Your task to perform on an android device: Open Maps and search for coffee Image 0: 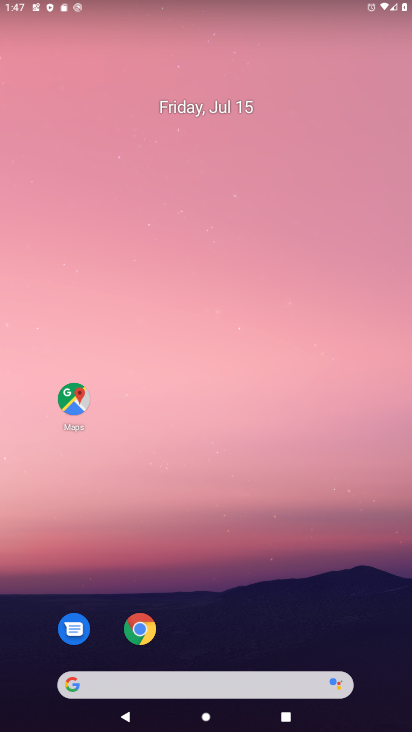
Step 0: drag from (331, 631) to (316, 87)
Your task to perform on an android device: Open Maps and search for coffee Image 1: 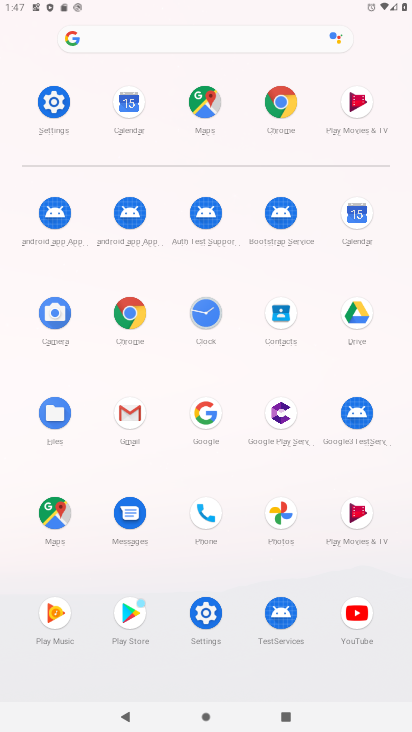
Step 1: click (194, 91)
Your task to perform on an android device: Open Maps and search for coffee Image 2: 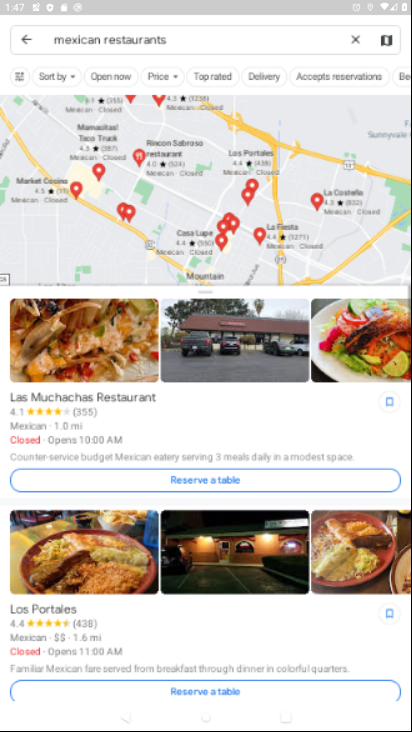
Step 2: click (217, 41)
Your task to perform on an android device: Open Maps and search for coffee Image 3: 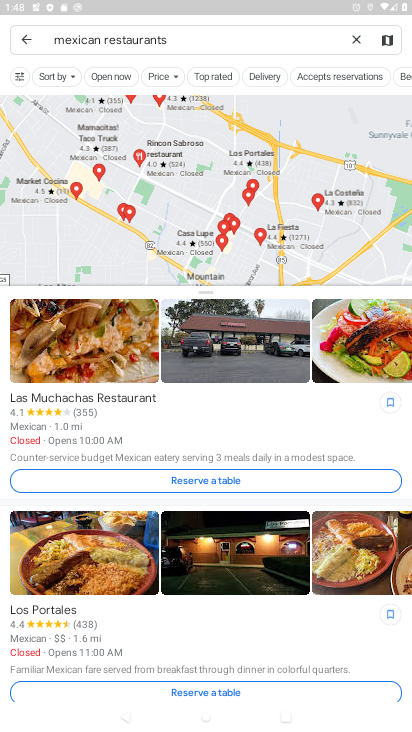
Step 3: click (321, 35)
Your task to perform on an android device: Open Maps and search for coffee Image 4: 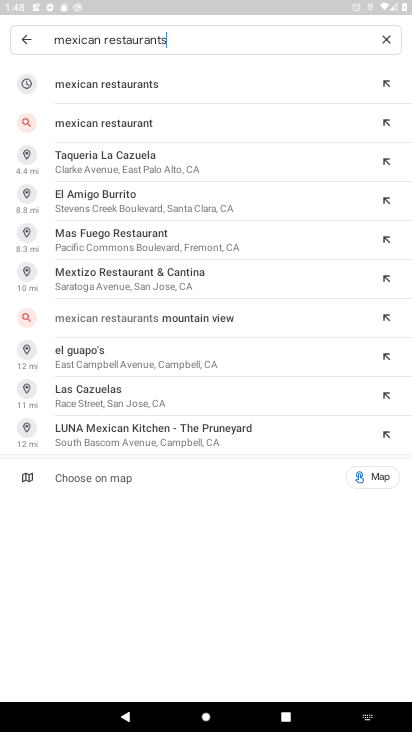
Step 4: click (387, 38)
Your task to perform on an android device: Open Maps and search for coffee Image 5: 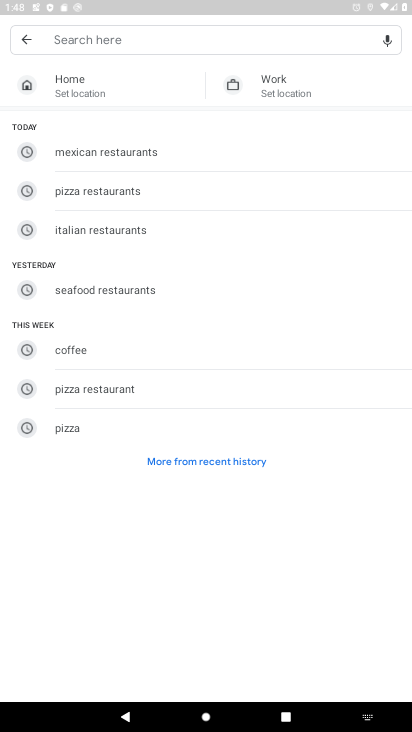
Step 5: click (75, 344)
Your task to perform on an android device: Open Maps and search for coffee Image 6: 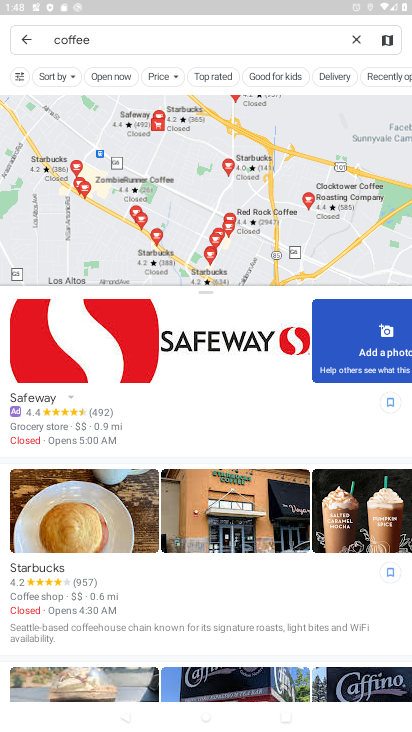
Step 6: task complete